Your task to perform on an android device: Go to accessibility settings Image 0: 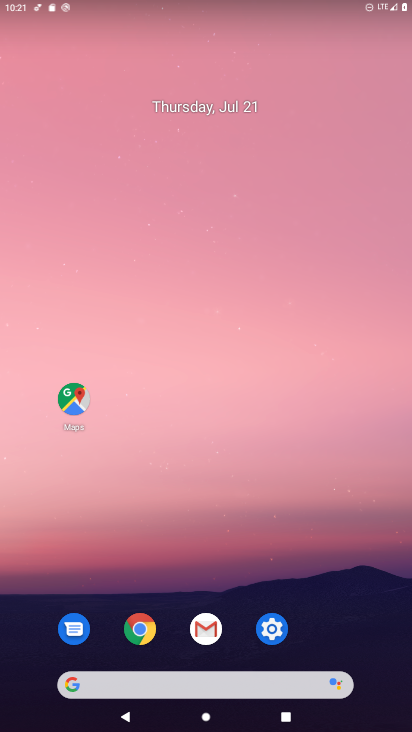
Step 0: click (273, 629)
Your task to perform on an android device: Go to accessibility settings Image 1: 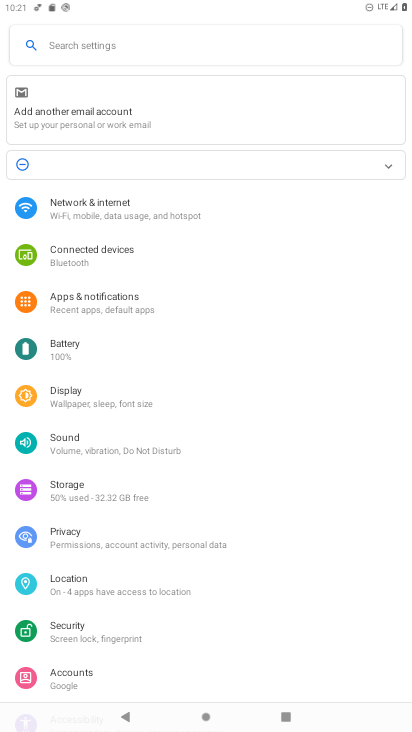
Step 1: click (278, 613)
Your task to perform on an android device: Go to accessibility settings Image 2: 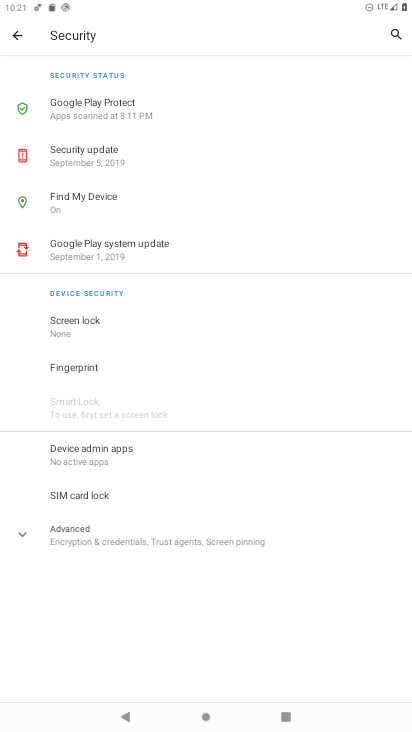
Step 2: click (18, 34)
Your task to perform on an android device: Go to accessibility settings Image 3: 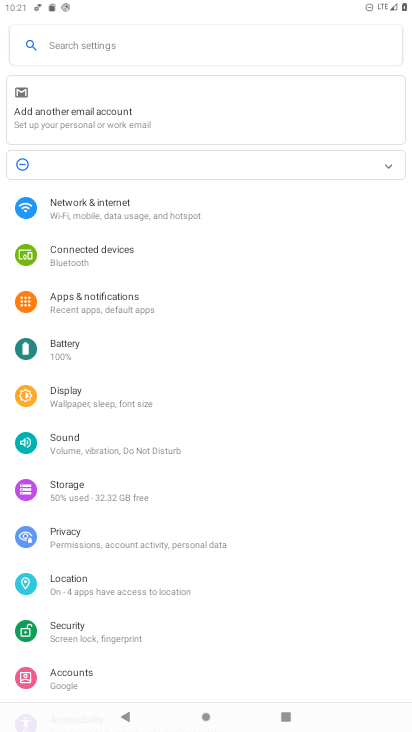
Step 3: click (110, 51)
Your task to perform on an android device: Go to accessibility settings Image 4: 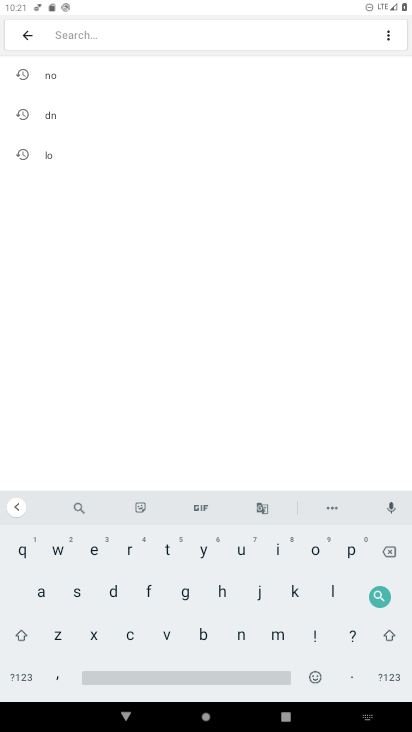
Step 4: click (39, 583)
Your task to perform on an android device: Go to accessibility settings Image 5: 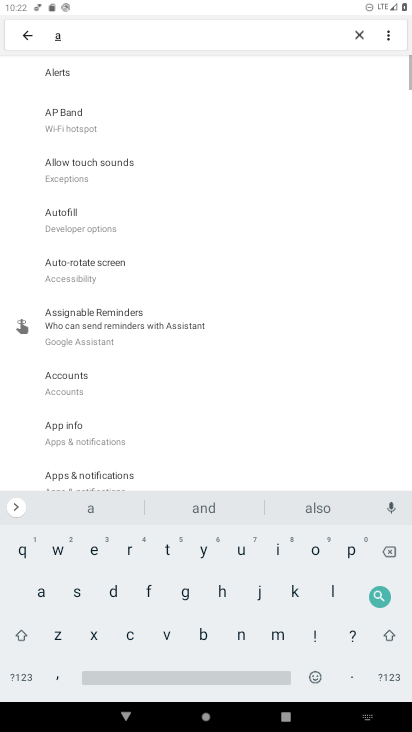
Step 5: click (133, 635)
Your task to perform on an android device: Go to accessibility settings Image 6: 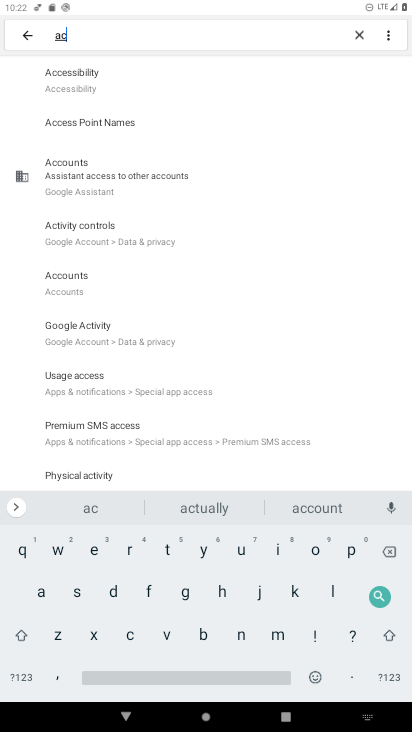
Step 6: click (66, 91)
Your task to perform on an android device: Go to accessibility settings Image 7: 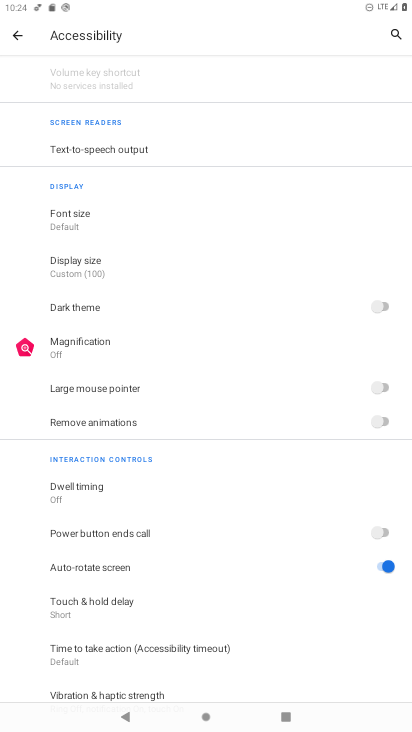
Step 7: task complete